Your task to perform on an android device: Search for Italian restaurants on Maps Image 0: 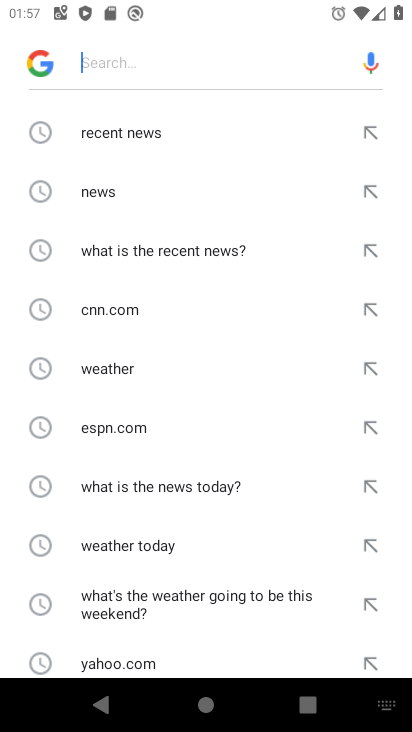
Step 0: press back button
Your task to perform on an android device: Search for Italian restaurants on Maps Image 1: 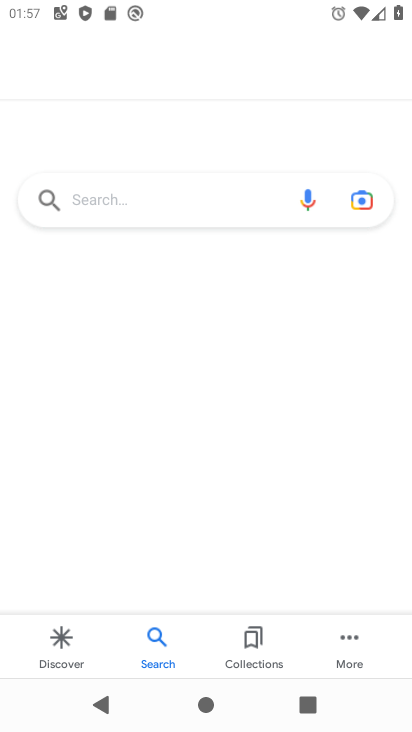
Step 1: press back button
Your task to perform on an android device: Search for Italian restaurants on Maps Image 2: 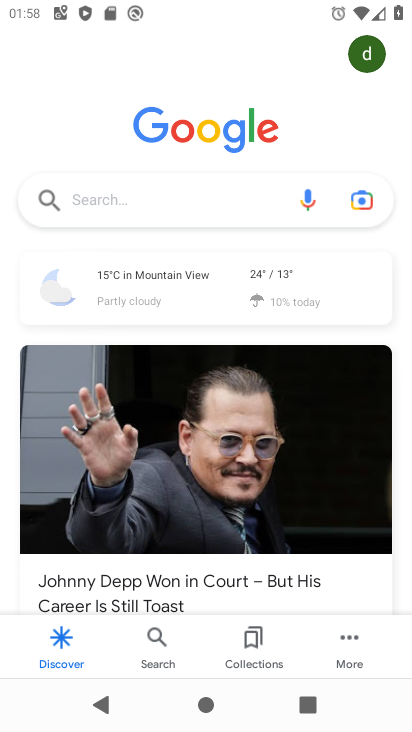
Step 2: press back button
Your task to perform on an android device: Search for Italian restaurants on Maps Image 3: 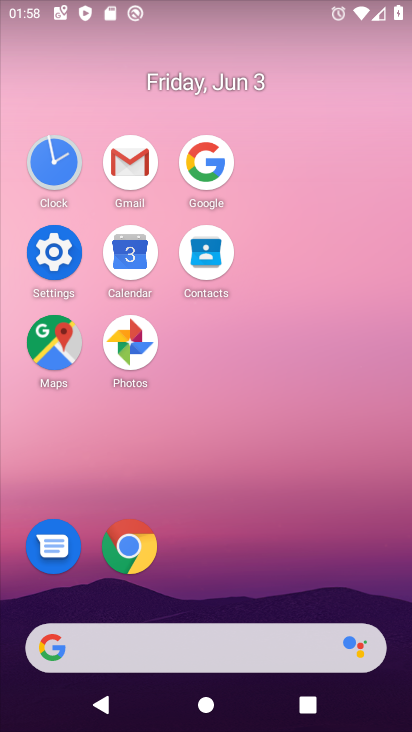
Step 3: click (67, 350)
Your task to perform on an android device: Search for Italian restaurants on Maps Image 4: 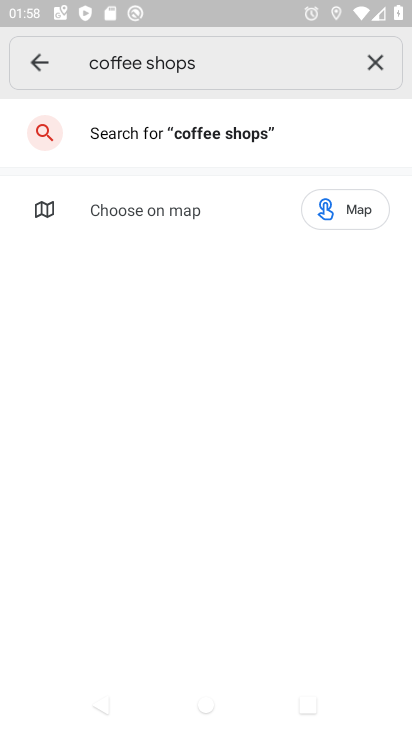
Step 4: click (372, 68)
Your task to perform on an android device: Search for Italian restaurants on Maps Image 5: 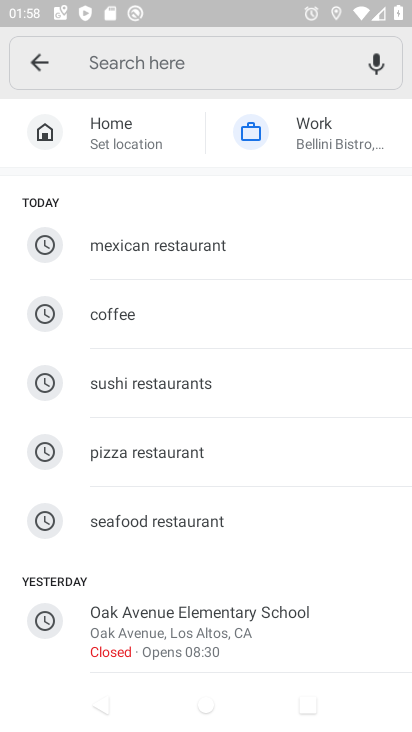
Step 5: click (167, 62)
Your task to perform on an android device: Search for Italian restaurants on Maps Image 6: 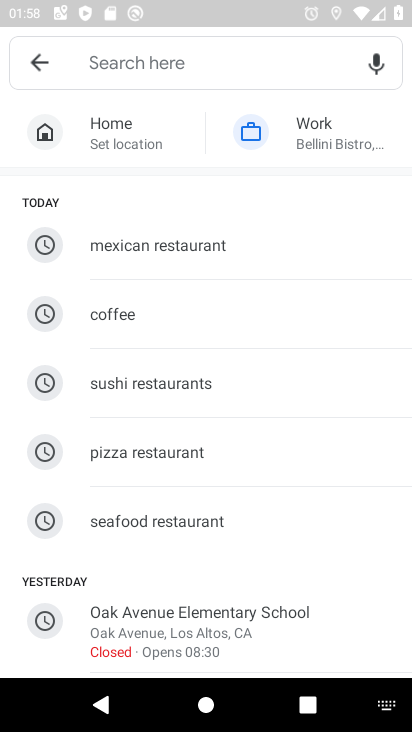
Step 6: type "italian restaurants"
Your task to perform on an android device: Search for Italian restaurants on Maps Image 7: 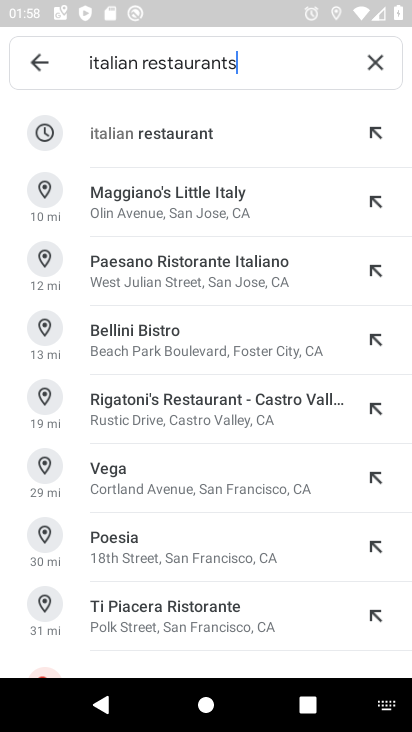
Step 7: task complete